Your task to perform on an android device: delete the emails in spam in the gmail app Image 0: 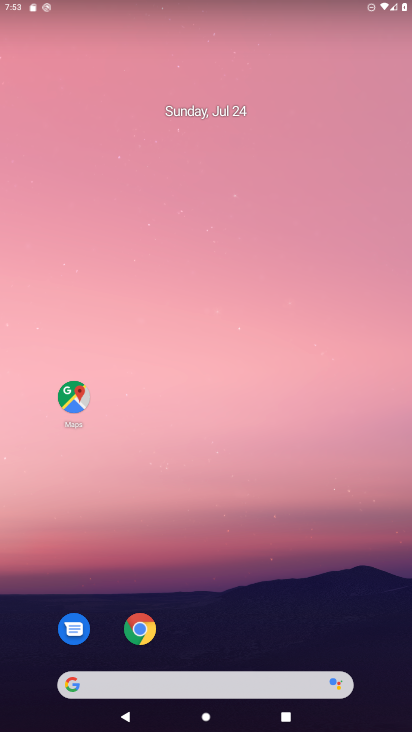
Step 0: drag from (325, 560) to (159, 0)
Your task to perform on an android device: delete the emails in spam in the gmail app Image 1: 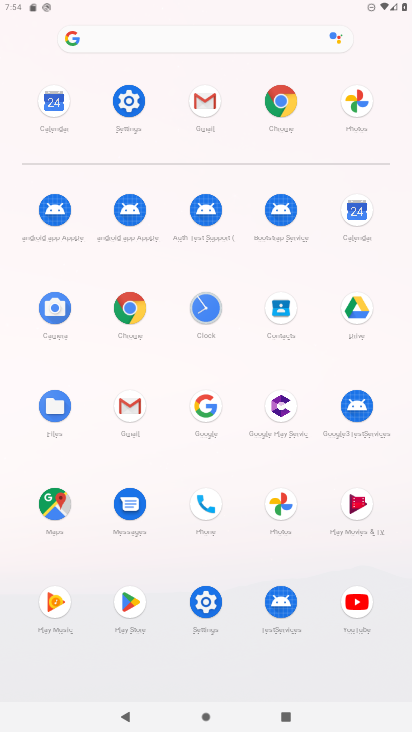
Step 1: click (127, 385)
Your task to perform on an android device: delete the emails in spam in the gmail app Image 2: 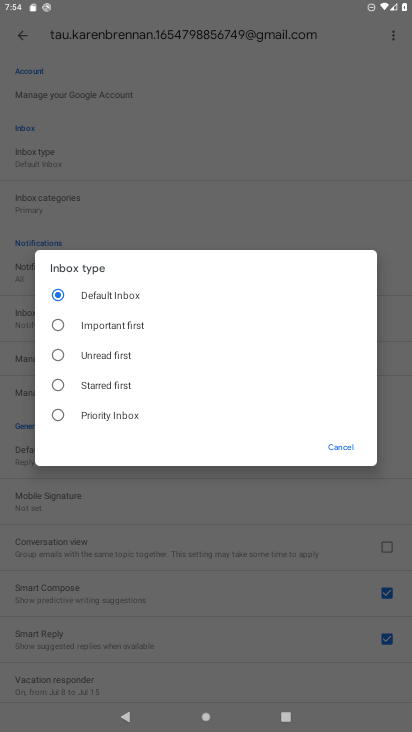
Step 2: task complete